Your task to perform on an android device: Add "bose soundlink" to the cart on bestbuy.com, then select checkout. Image 0: 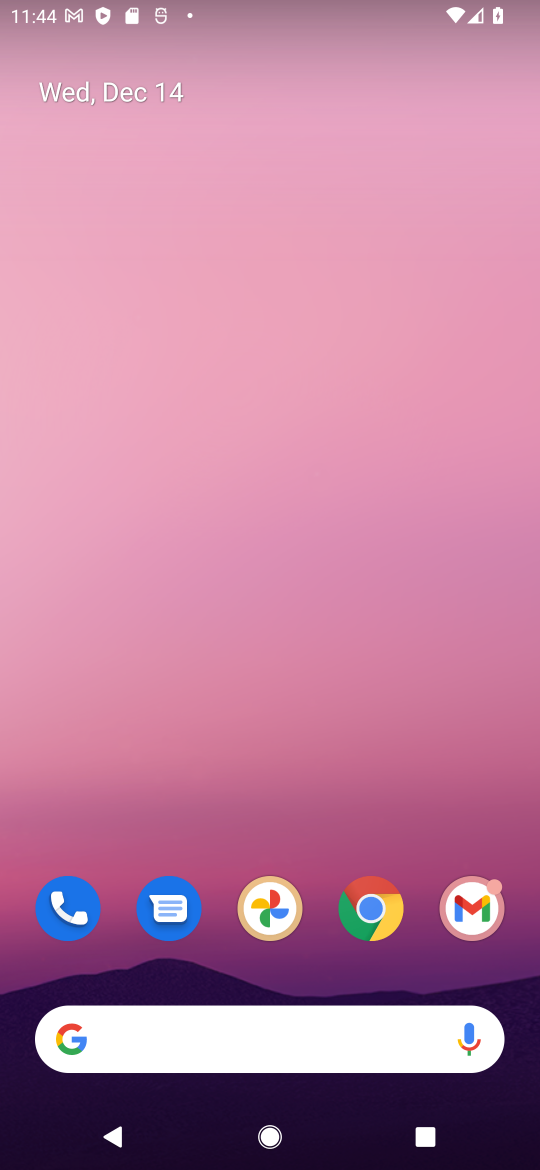
Step 0: click (365, 916)
Your task to perform on an android device: Add "bose soundlink" to the cart on bestbuy.com, then select checkout. Image 1: 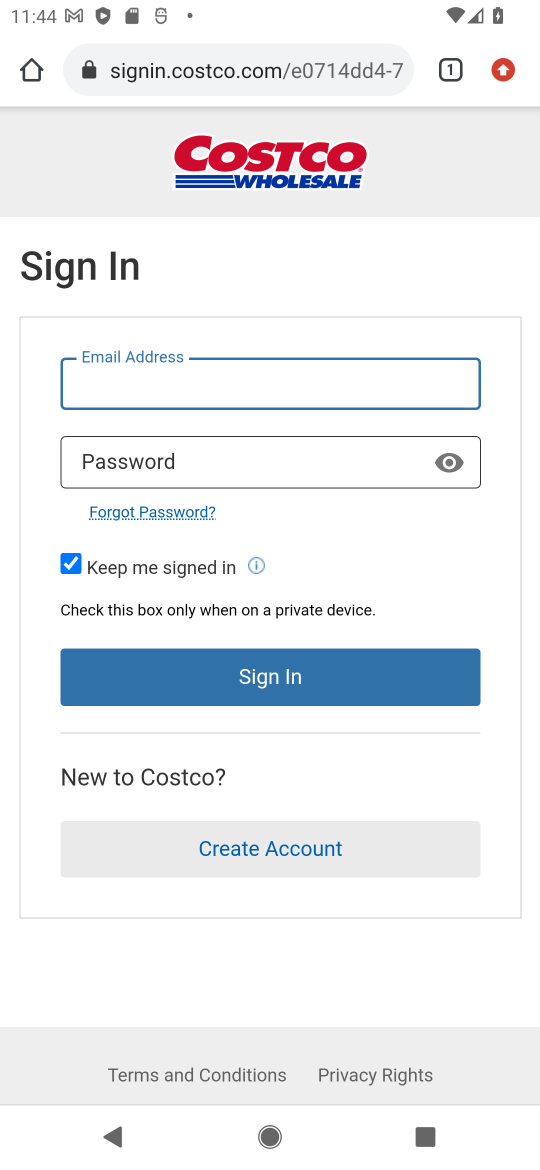
Step 1: click (226, 74)
Your task to perform on an android device: Add "bose soundlink" to the cart on bestbuy.com, then select checkout. Image 2: 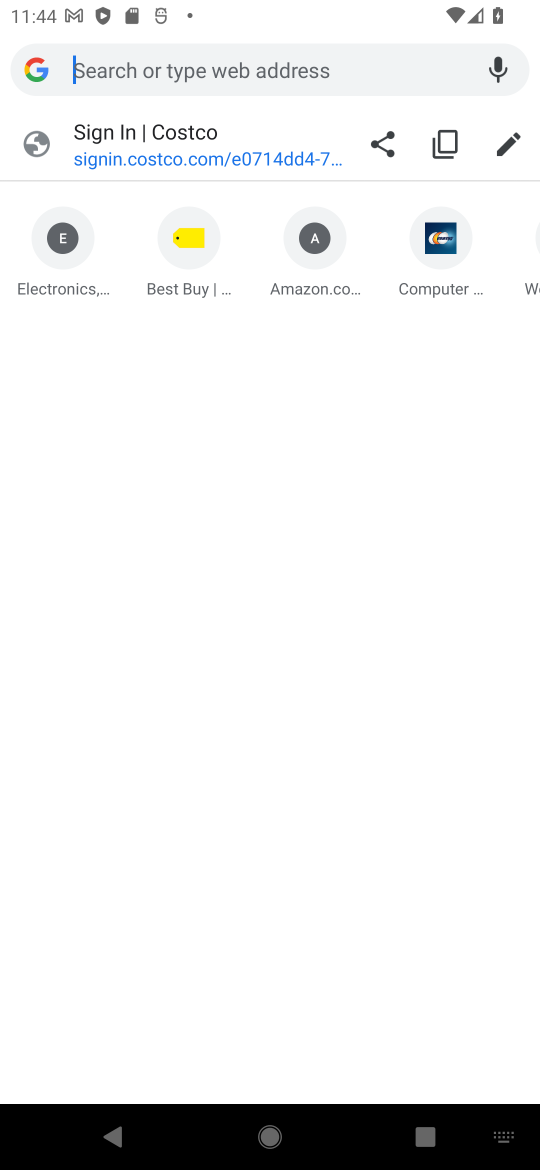
Step 2: click (188, 284)
Your task to perform on an android device: Add "bose soundlink" to the cart on bestbuy.com, then select checkout. Image 3: 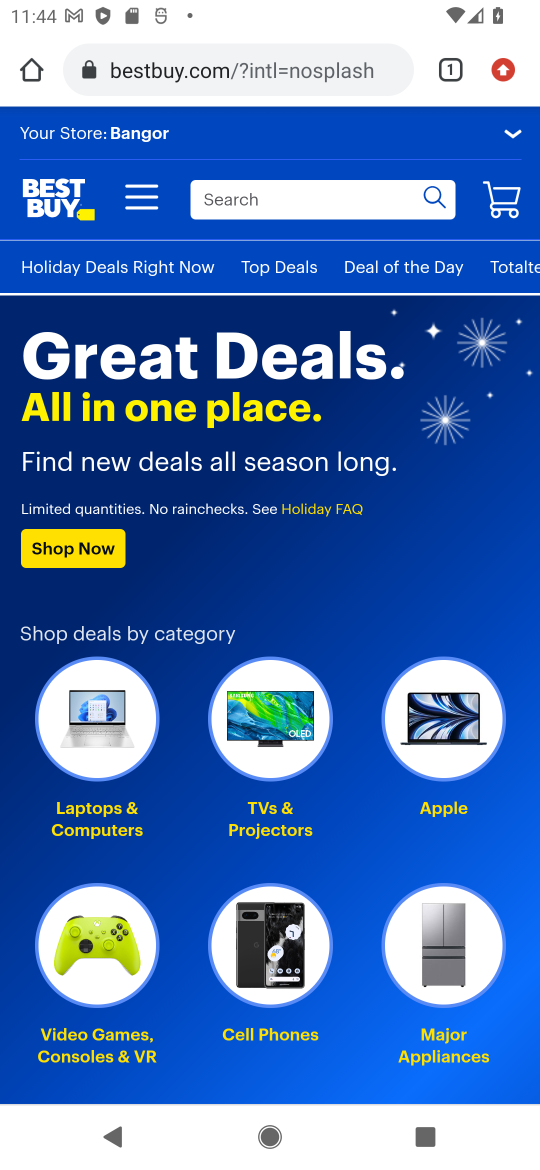
Step 3: click (244, 201)
Your task to perform on an android device: Add "bose soundlink" to the cart on bestbuy.com, then select checkout. Image 4: 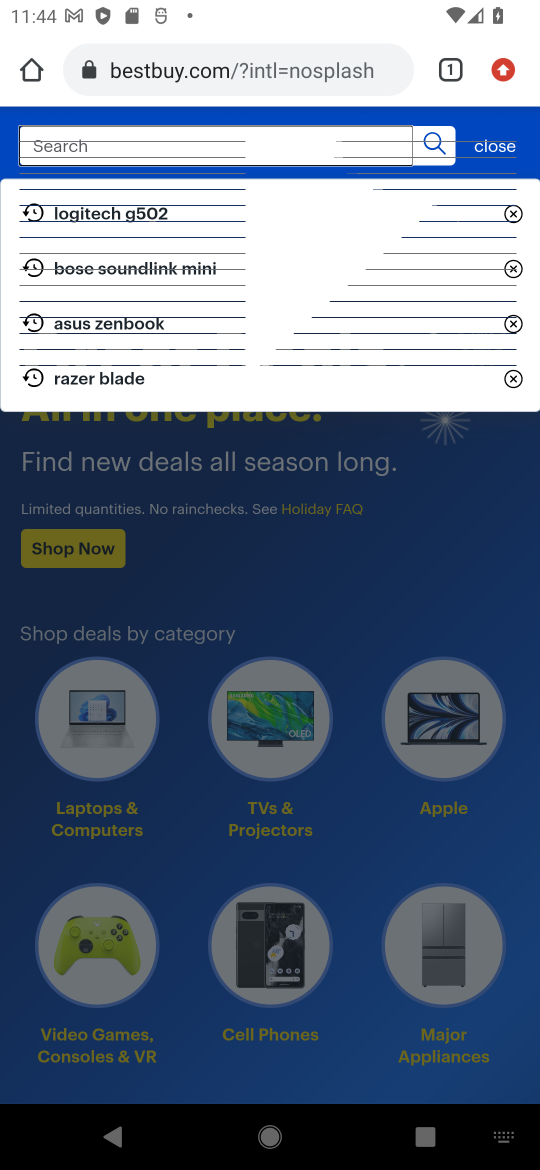
Step 4: type "bose soundlink"
Your task to perform on an android device: Add "bose soundlink" to the cart on bestbuy.com, then select checkout. Image 5: 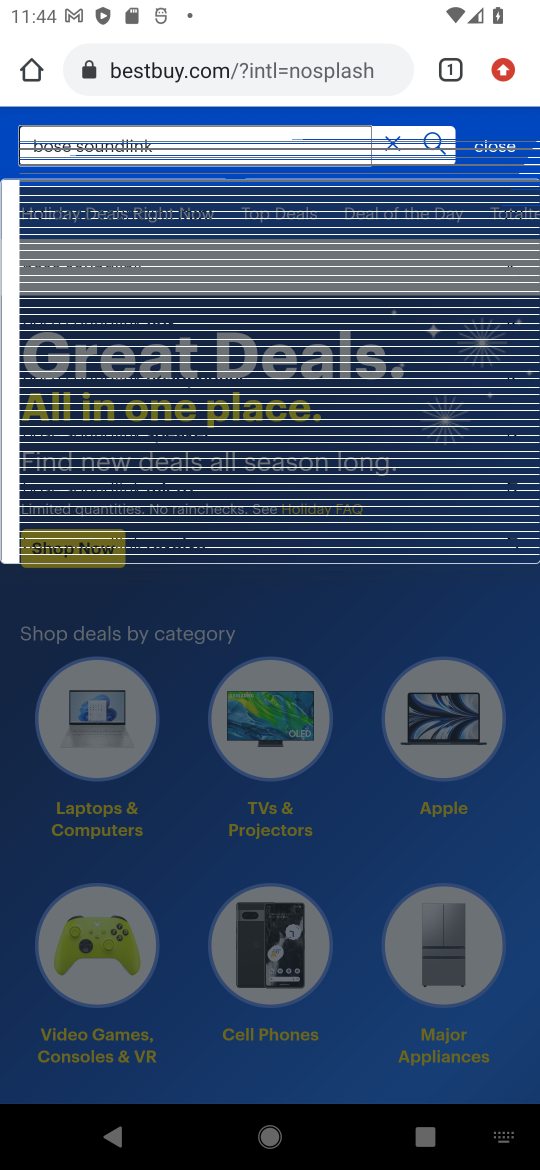
Step 5: click (92, 279)
Your task to perform on an android device: Add "bose soundlink" to the cart on bestbuy.com, then select checkout. Image 6: 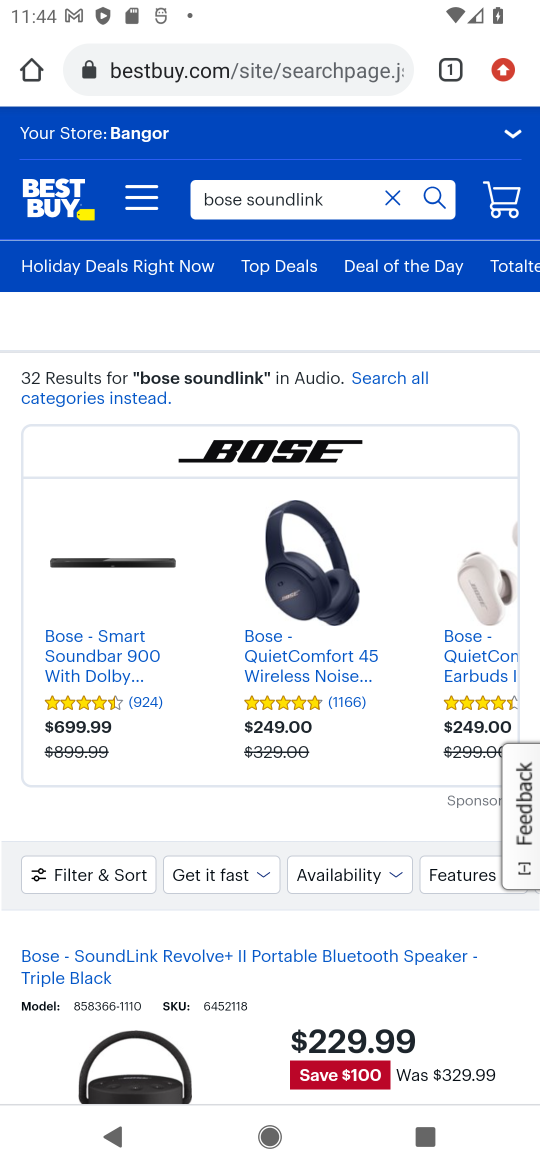
Step 6: drag from (275, 653) to (249, 338)
Your task to perform on an android device: Add "bose soundlink" to the cart on bestbuy.com, then select checkout. Image 7: 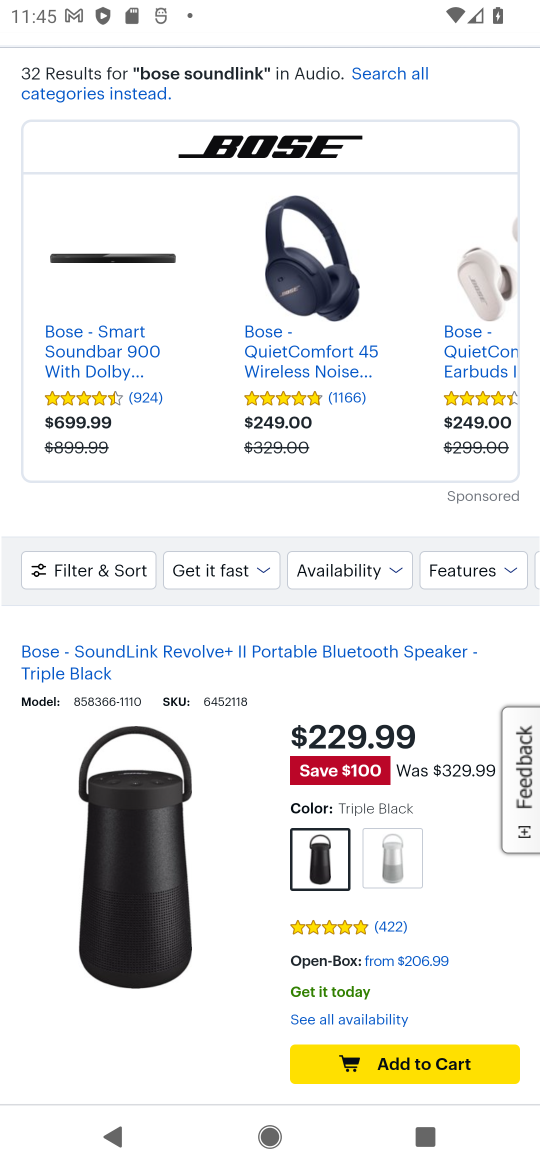
Step 7: drag from (188, 714) to (197, 457)
Your task to perform on an android device: Add "bose soundlink" to the cart on bestbuy.com, then select checkout. Image 8: 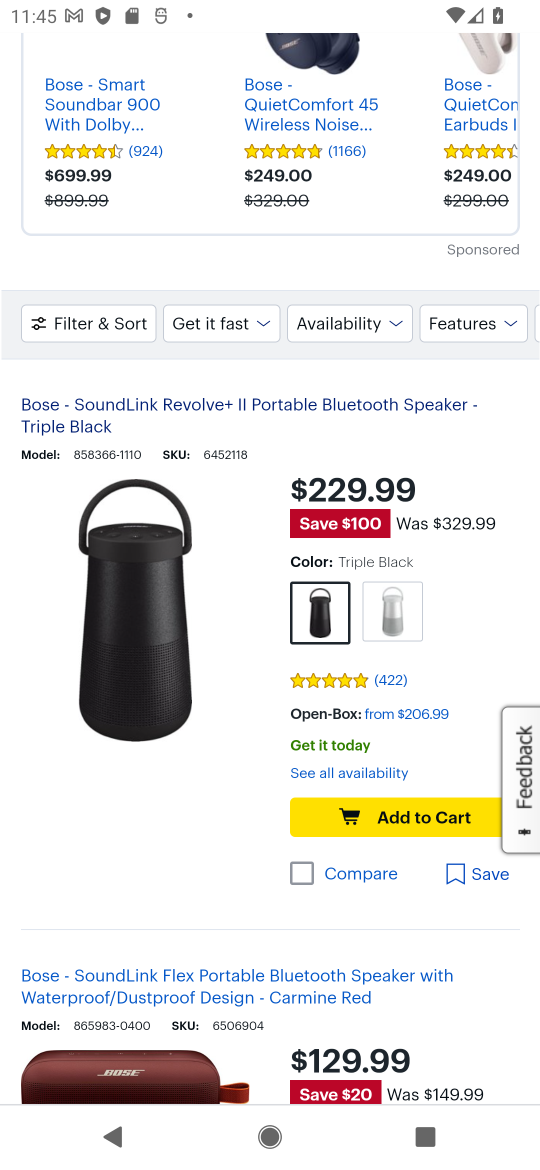
Step 8: click (391, 821)
Your task to perform on an android device: Add "bose soundlink" to the cart on bestbuy.com, then select checkout. Image 9: 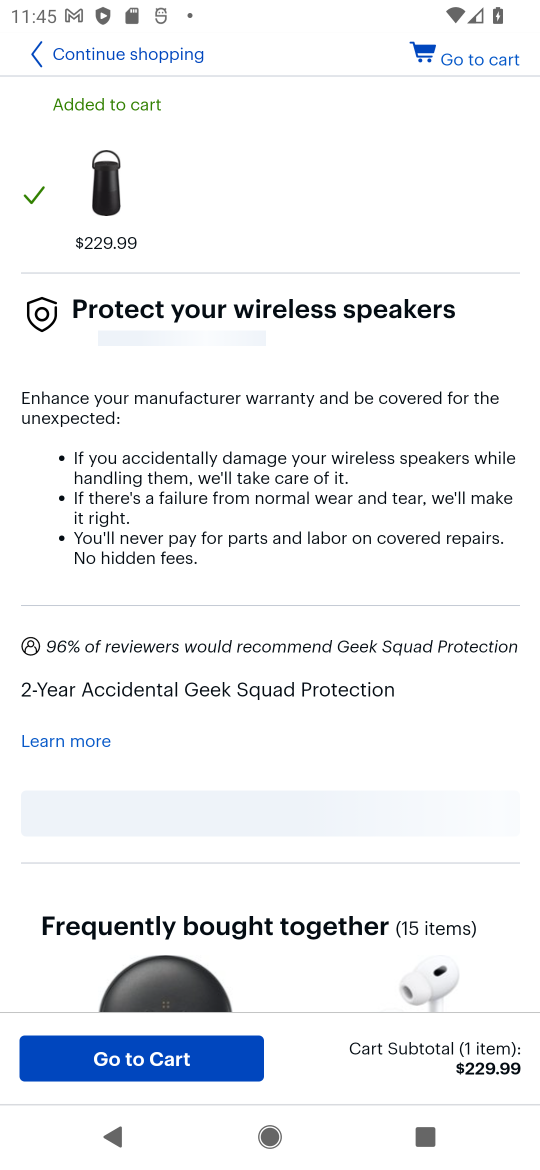
Step 9: click (475, 62)
Your task to perform on an android device: Add "bose soundlink" to the cart on bestbuy.com, then select checkout. Image 10: 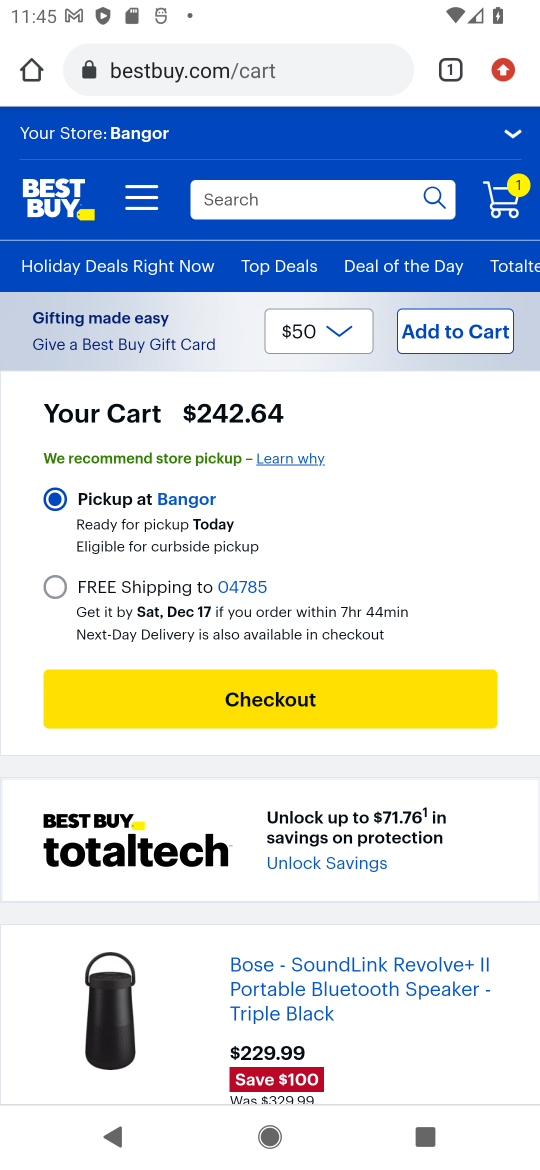
Step 10: click (288, 709)
Your task to perform on an android device: Add "bose soundlink" to the cart on bestbuy.com, then select checkout. Image 11: 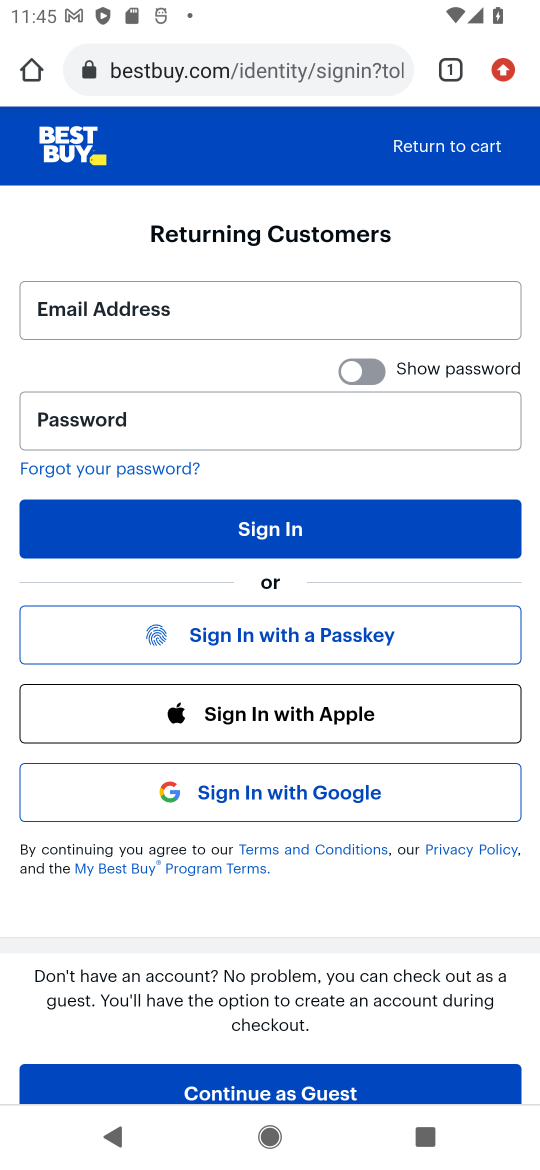
Step 11: task complete